Your task to perform on an android device: turn on sleep mode Image 0: 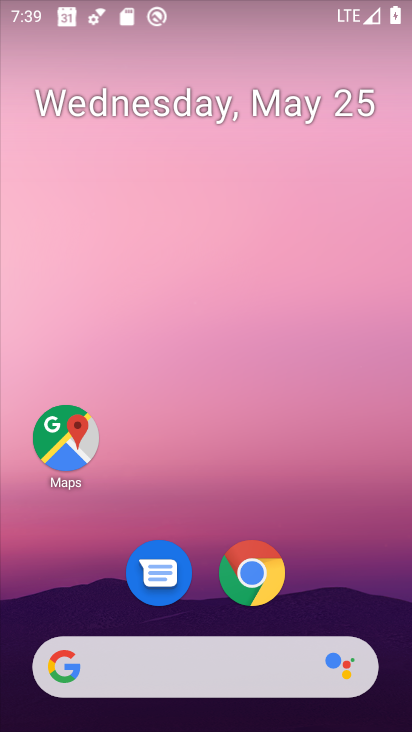
Step 0: drag from (386, 683) to (332, 221)
Your task to perform on an android device: turn on sleep mode Image 1: 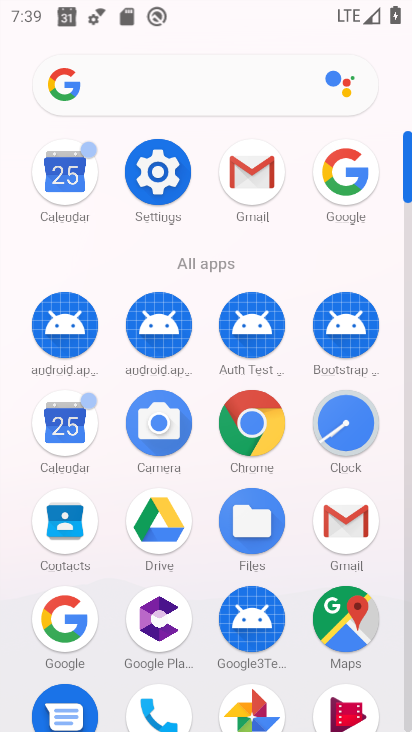
Step 1: click (144, 175)
Your task to perform on an android device: turn on sleep mode Image 2: 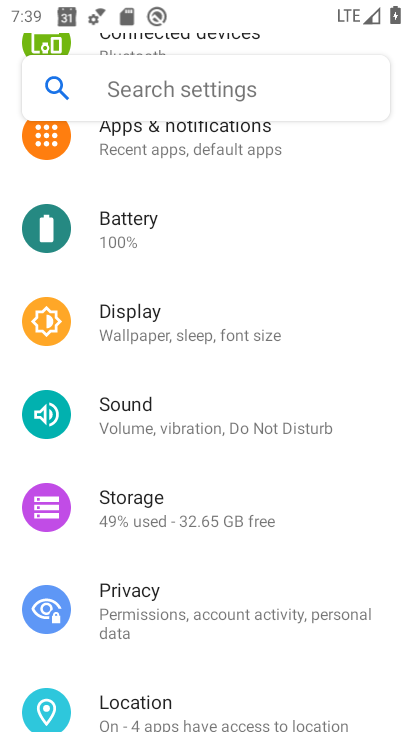
Step 2: click (122, 309)
Your task to perform on an android device: turn on sleep mode Image 3: 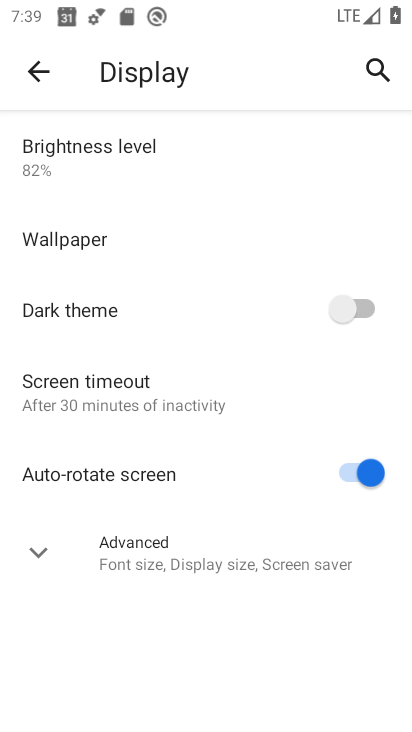
Step 3: click (150, 392)
Your task to perform on an android device: turn on sleep mode Image 4: 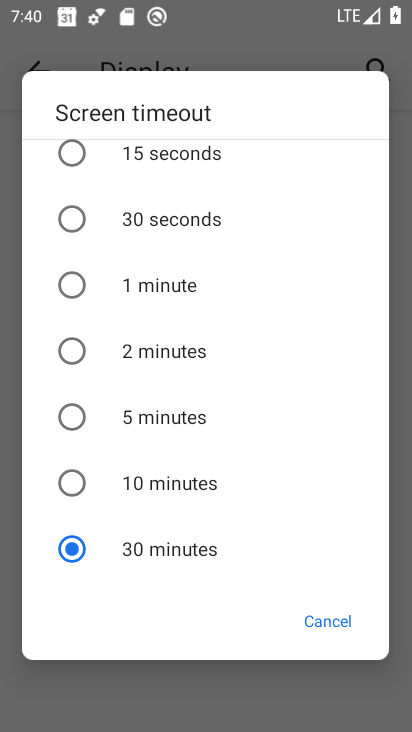
Step 4: task complete